Your task to perform on an android device: Open network settings Image 0: 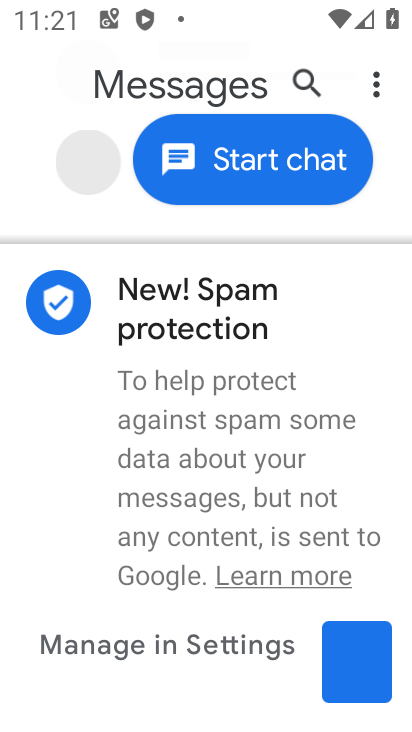
Step 0: press home button
Your task to perform on an android device: Open network settings Image 1: 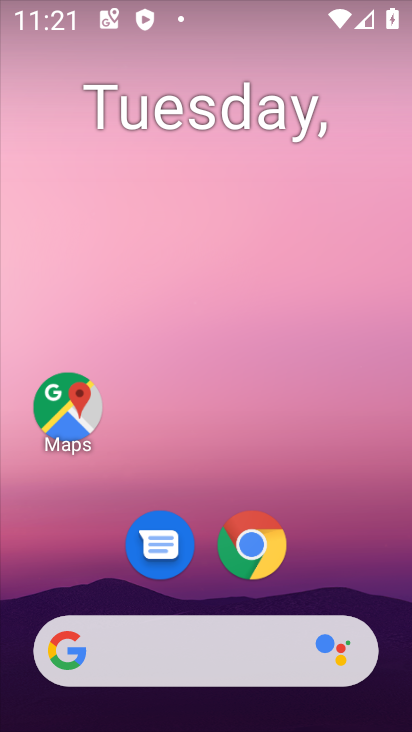
Step 1: drag from (337, 248) to (335, 95)
Your task to perform on an android device: Open network settings Image 2: 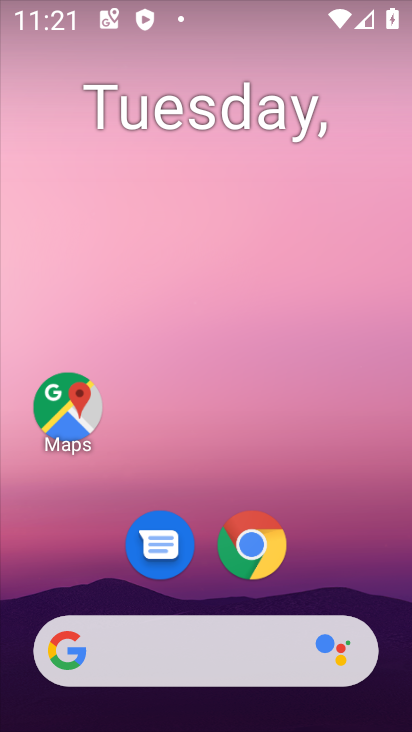
Step 2: drag from (325, 546) to (315, 108)
Your task to perform on an android device: Open network settings Image 3: 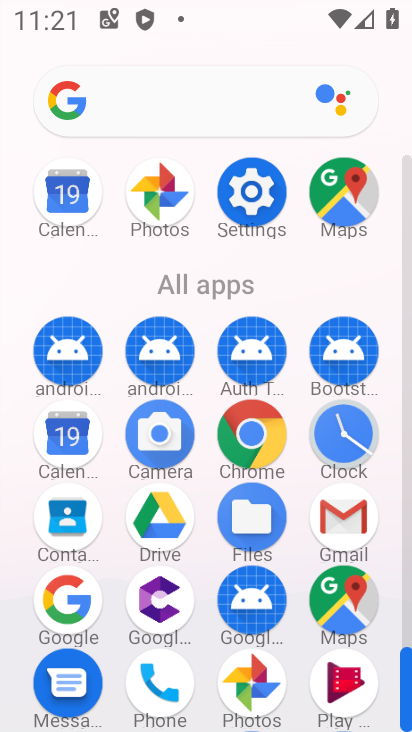
Step 3: click (257, 180)
Your task to perform on an android device: Open network settings Image 4: 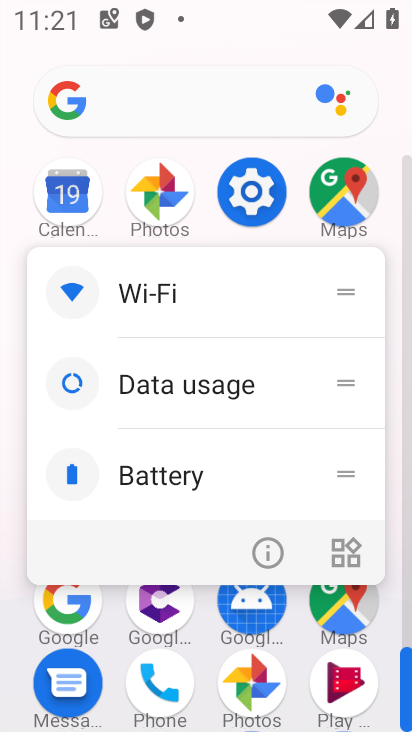
Step 4: click (257, 178)
Your task to perform on an android device: Open network settings Image 5: 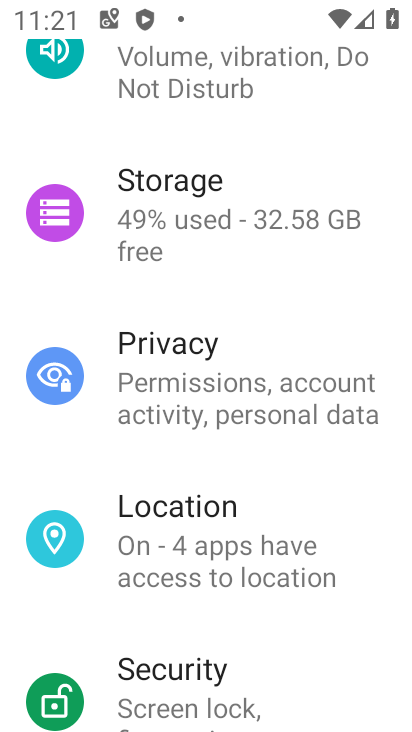
Step 5: drag from (261, 155) to (258, 675)
Your task to perform on an android device: Open network settings Image 6: 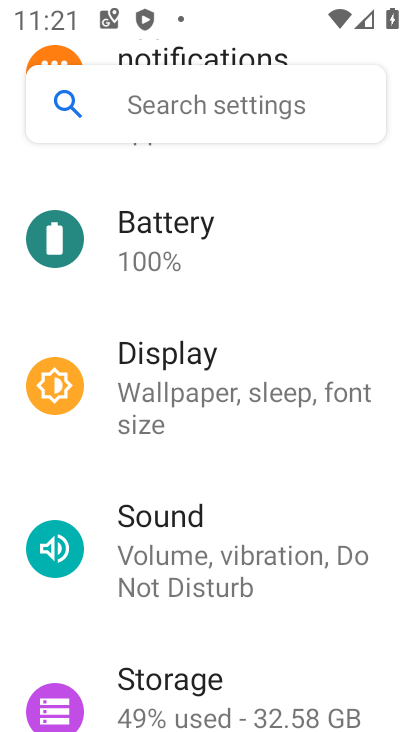
Step 6: drag from (220, 262) to (226, 646)
Your task to perform on an android device: Open network settings Image 7: 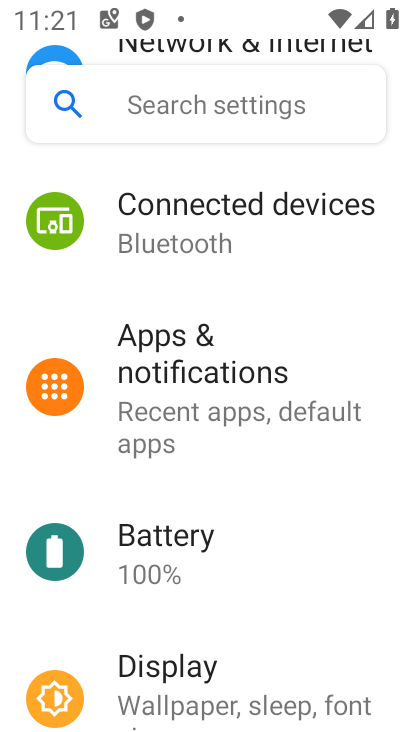
Step 7: drag from (230, 276) to (280, 634)
Your task to perform on an android device: Open network settings Image 8: 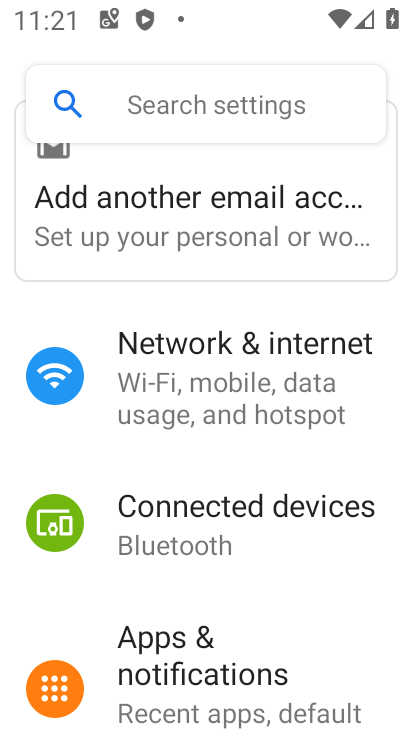
Step 8: click (248, 374)
Your task to perform on an android device: Open network settings Image 9: 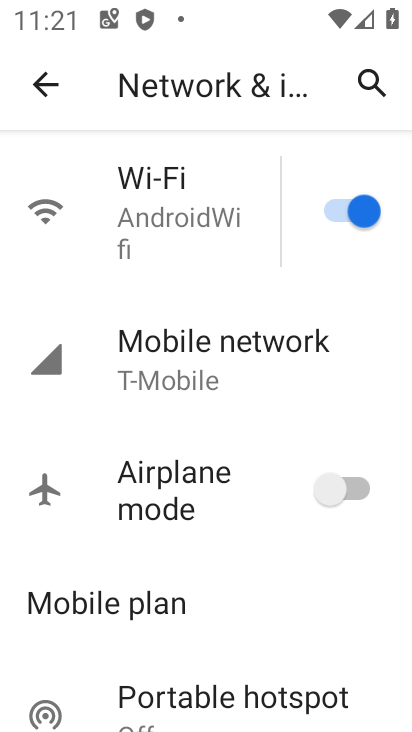
Step 9: task complete